Your task to perform on an android device: Go to calendar. Show me events next week Image 0: 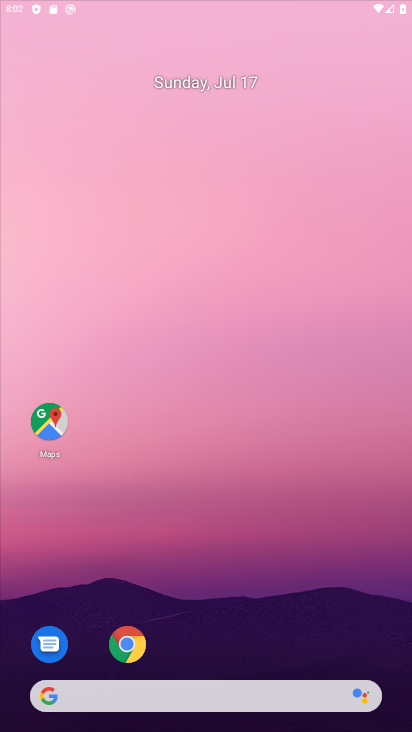
Step 0: drag from (238, 510) to (205, 256)
Your task to perform on an android device: Go to calendar. Show me events next week Image 1: 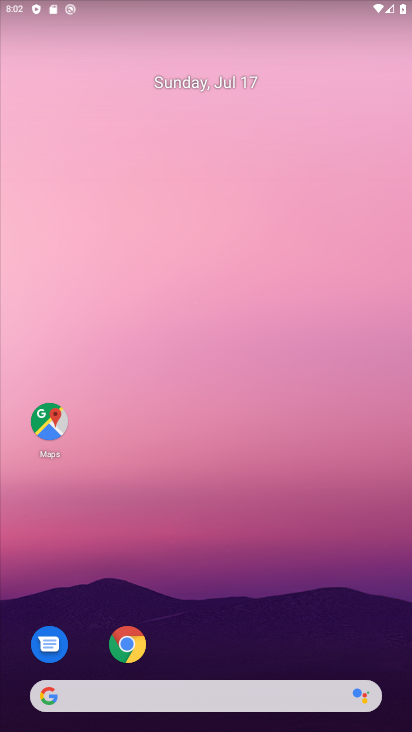
Step 1: drag from (180, 416) to (180, 6)
Your task to perform on an android device: Go to calendar. Show me events next week Image 2: 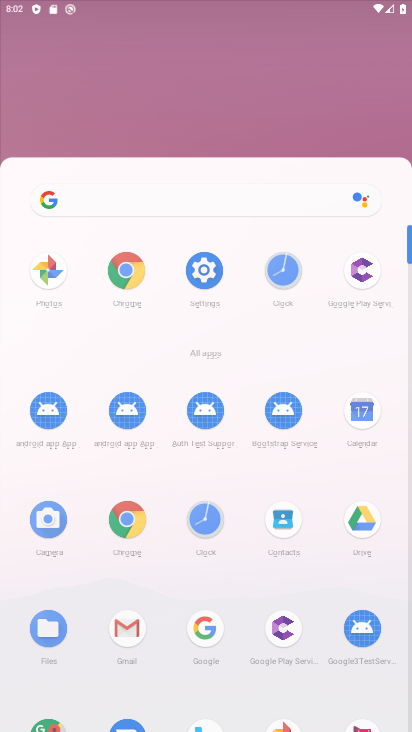
Step 2: drag from (198, 631) to (294, 8)
Your task to perform on an android device: Go to calendar. Show me events next week Image 3: 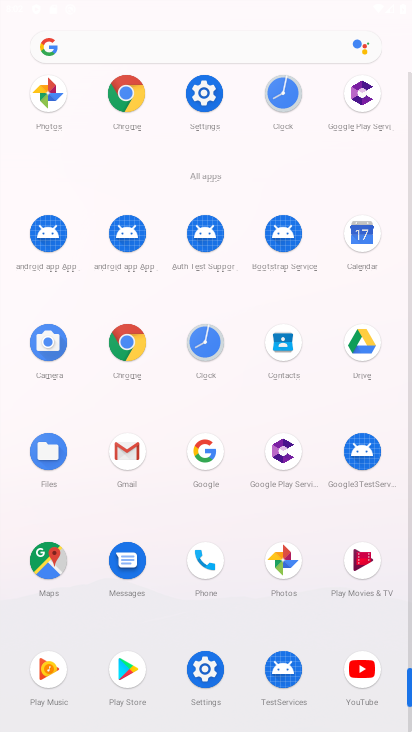
Step 3: click (366, 235)
Your task to perform on an android device: Go to calendar. Show me events next week Image 4: 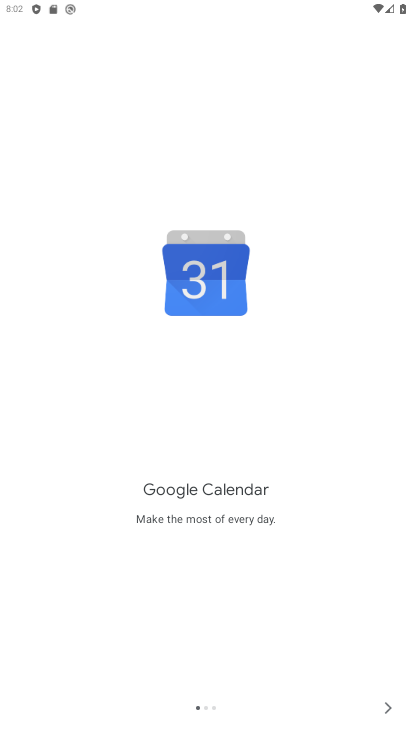
Step 4: click (392, 698)
Your task to perform on an android device: Go to calendar. Show me events next week Image 5: 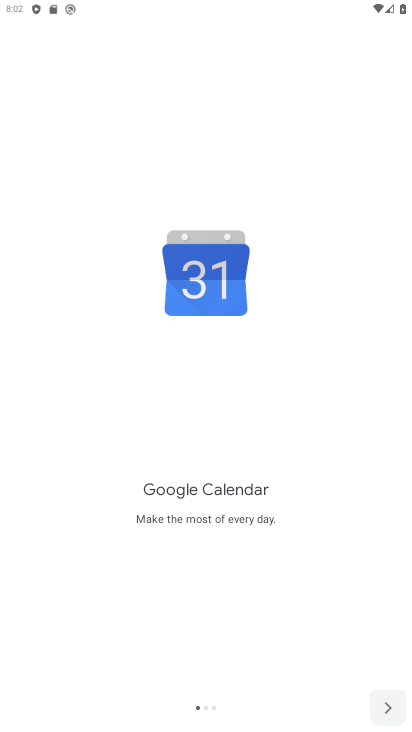
Step 5: click (392, 698)
Your task to perform on an android device: Go to calendar. Show me events next week Image 6: 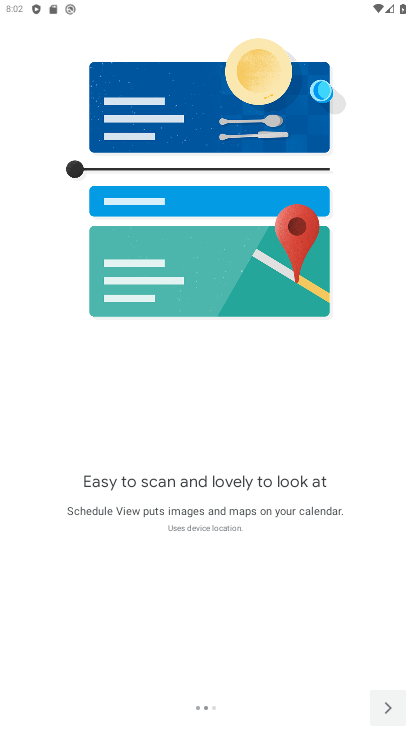
Step 6: click (392, 698)
Your task to perform on an android device: Go to calendar. Show me events next week Image 7: 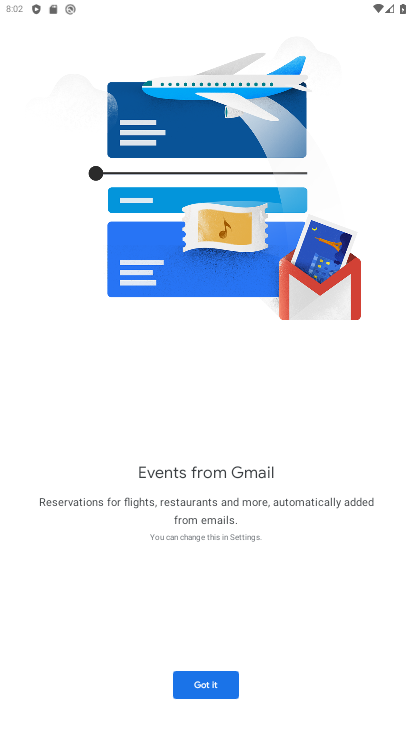
Step 7: click (391, 705)
Your task to perform on an android device: Go to calendar. Show me events next week Image 8: 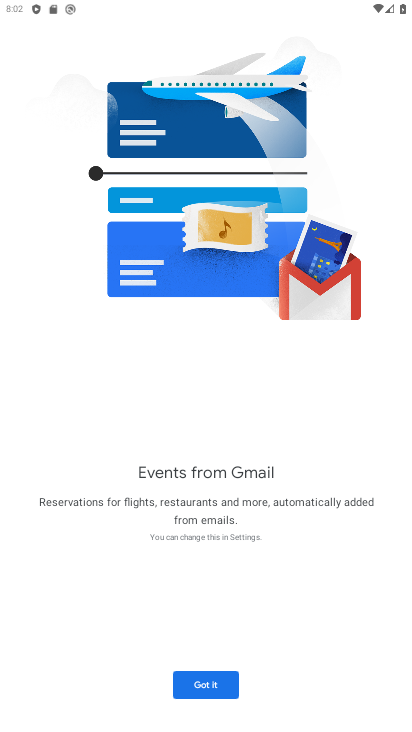
Step 8: click (220, 685)
Your task to perform on an android device: Go to calendar. Show me events next week Image 9: 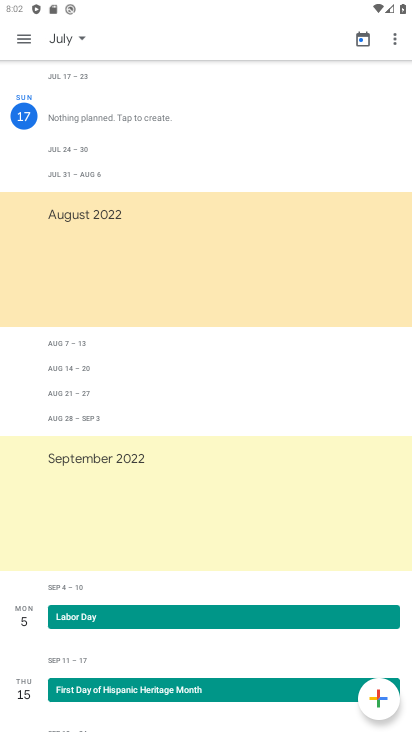
Step 9: click (21, 40)
Your task to perform on an android device: Go to calendar. Show me events next week Image 10: 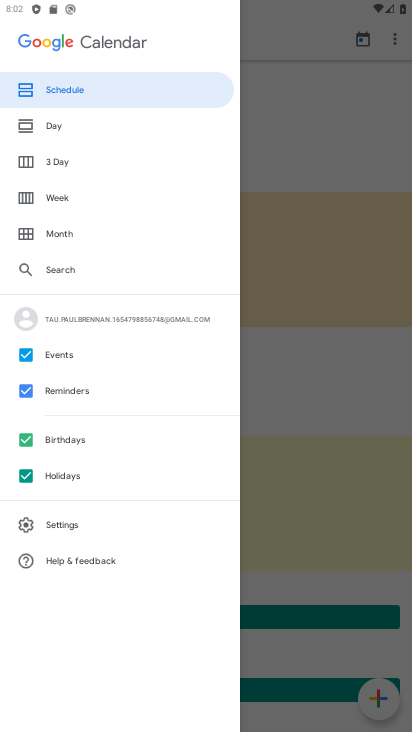
Step 10: click (60, 353)
Your task to perform on an android device: Go to calendar. Show me events next week Image 11: 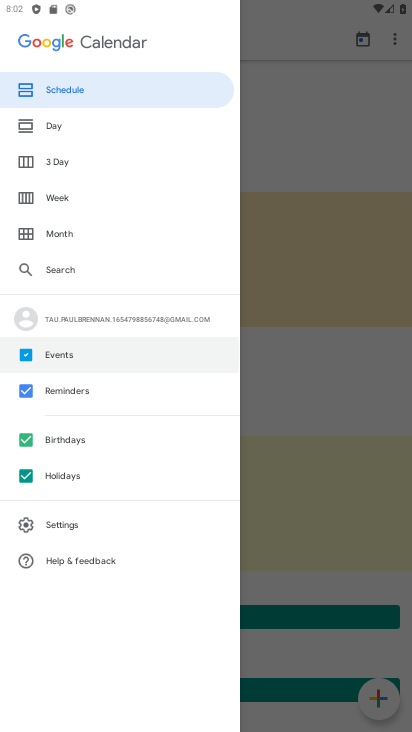
Step 11: click (60, 353)
Your task to perform on an android device: Go to calendar. Show me events next week Image 12: 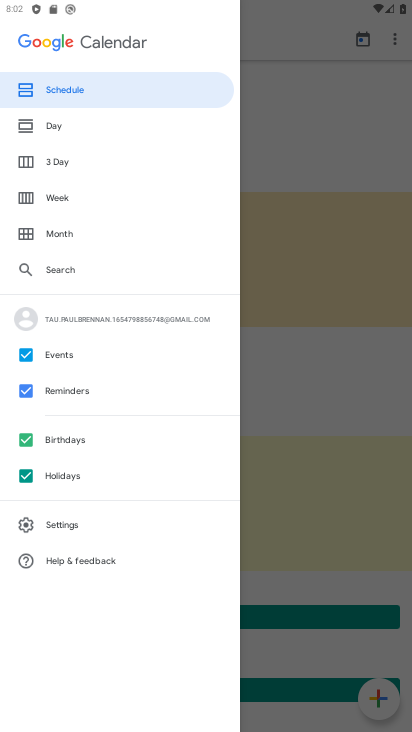
Step 12: click (308, 261)
Your task to perform on an android device: Go to calendar. Show me events next week Image 13: 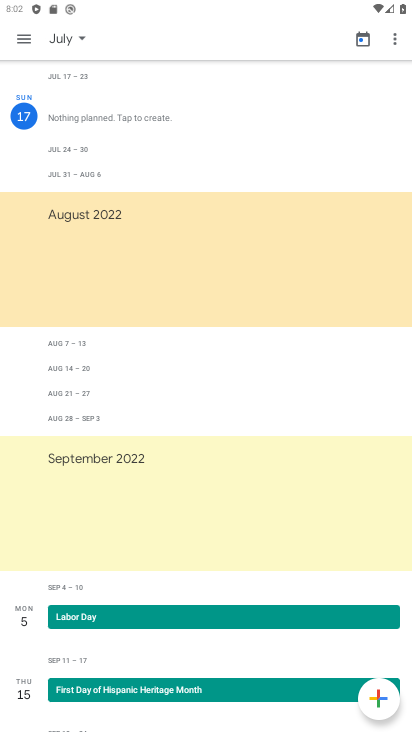
Step 13: click (78, 33)
Your task to perform on an android device: Go to calendar. Show me events next week Image 14: 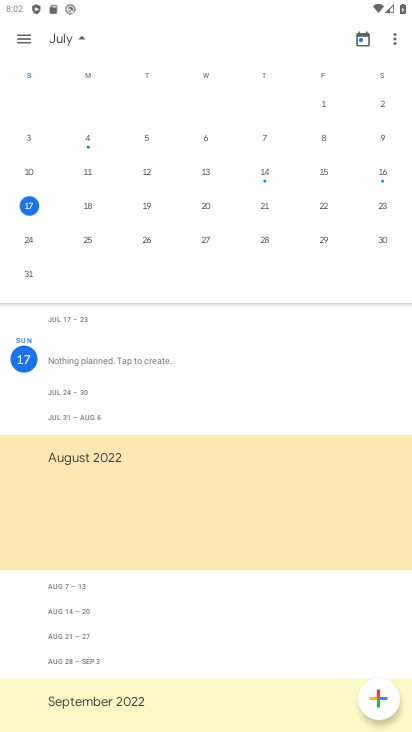
Step 14: task complete